Your task to perform on an android device: change the clock style Image 0: 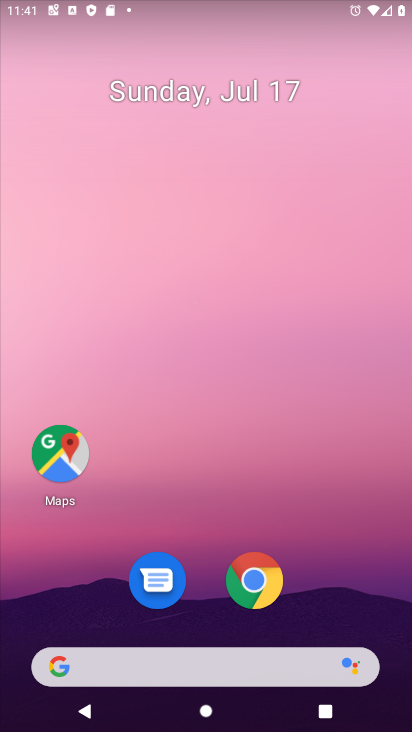
Step 0: drag from (262, 623) to (334, 94)
Your task to perform on an android device: change the clock style Image 1: 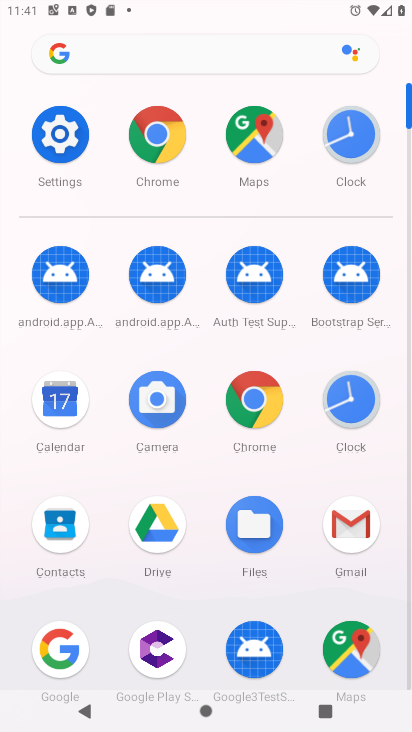
Step 1: click (354, 423)
Your task to perform on an android device: change the clock style Image 2: 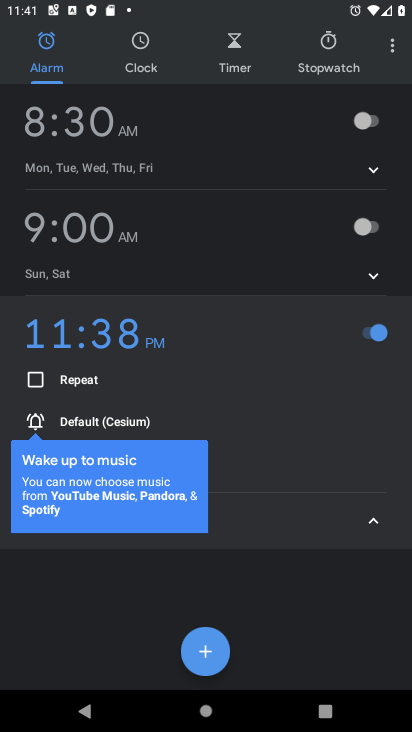
Step 2: click (398, 42)
Your task to perform on an android device: change the clock style Image 3: 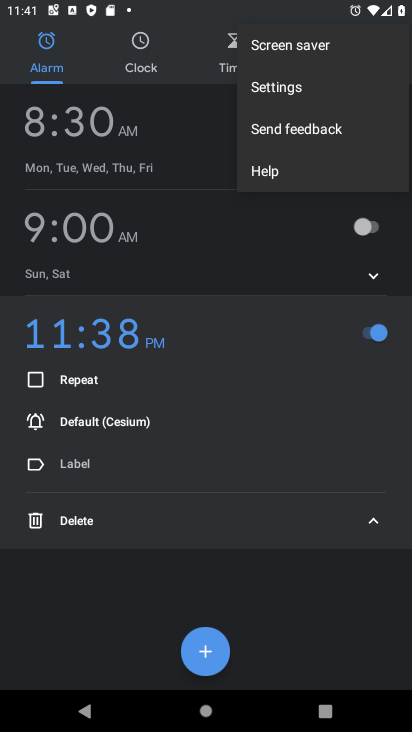
Step 3: click (286, 97)
Your task to perform on an android device: change the clock style Image 4: 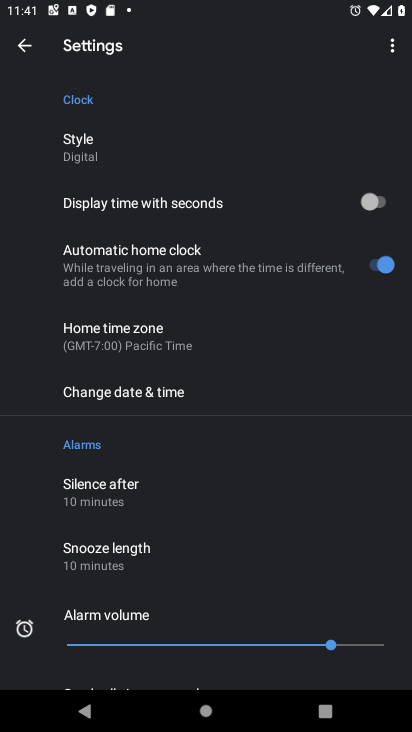
Step 4: click (110, 155)
Your task to perform on an android device: change the clock style Image 5: 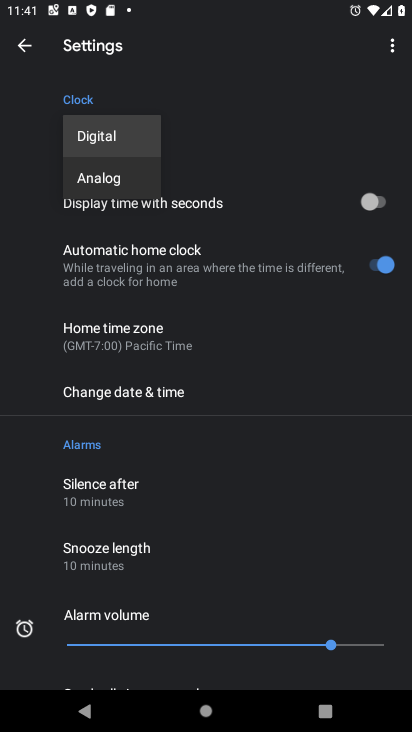
Step 5: click (125, 183)
Your task to perform on an android device: change the clock style Image 6: 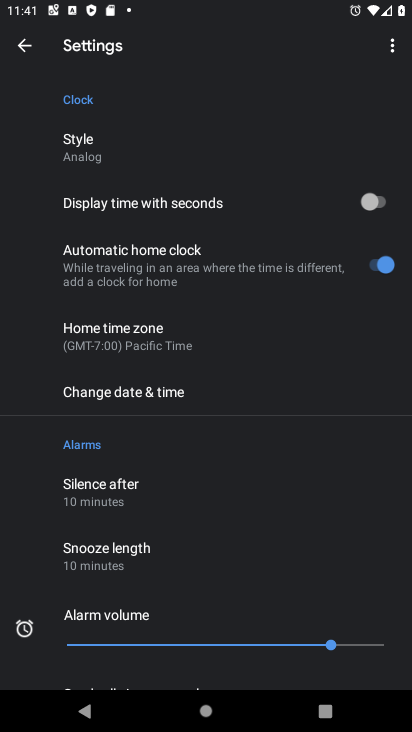
Step 6: task complete